Your task to perform on an android device: Search for pizza restaurants on Maps Image 0: 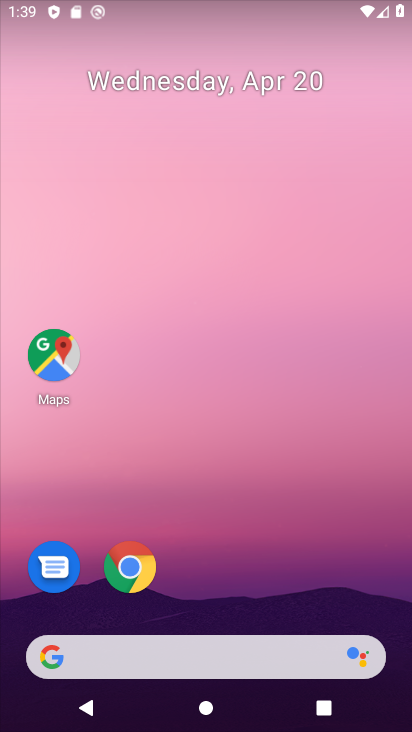
Step 0: click (65, 360)
Your task to perform on an android device: Search for pizza restaurants on Maps Image 1: 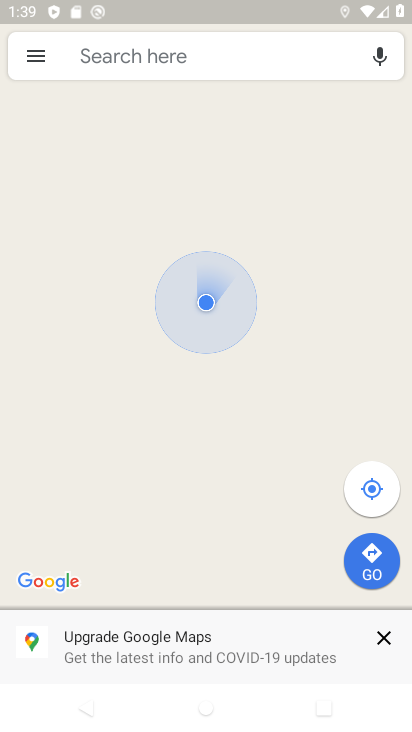
Step 1: click (227, 53)
Your task to perform on an android device: Search for pizza restaurants on Maps Image 2: 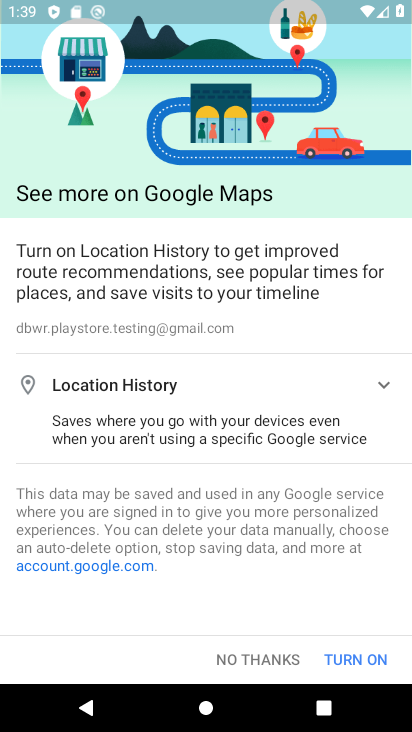
Step 2: type "pizza restaurants"
Your task to perform on an android device: Search for pizza restaurants on Maps Image 3: 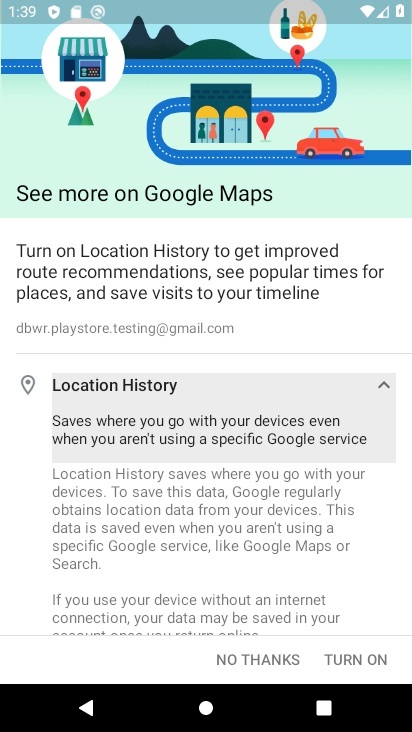
Step 3: click (255, 663)
Your task to perform on an android device: Search for pizza restaurants on Maps Image 4: 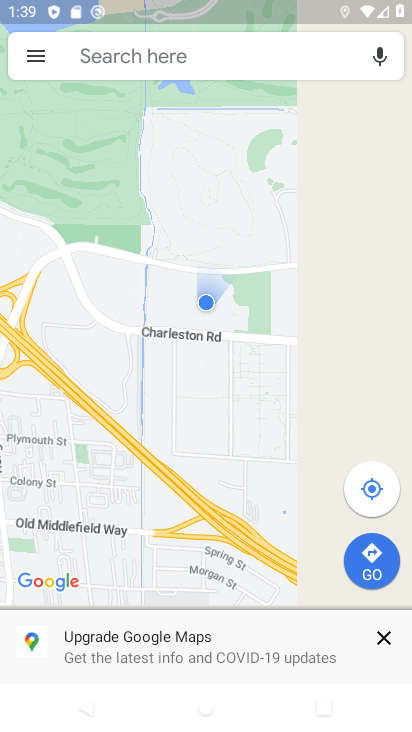
Step 4: click (192, 57)
Your task to perform on an android device: Search for pizza restaurants on Maps Image 5: 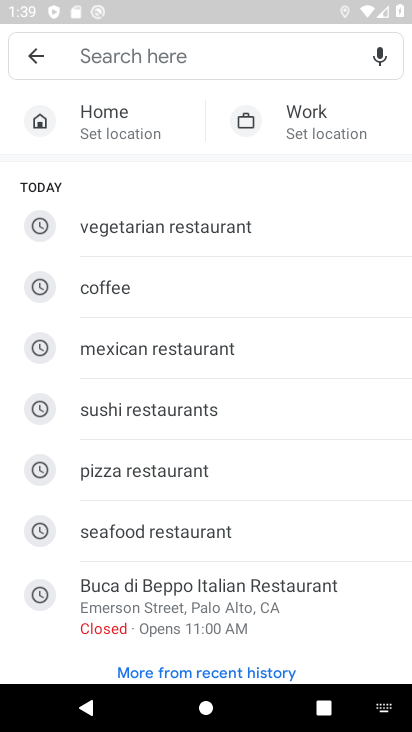
Step 5: type "pizza restaurant"
Your task to perform on an android device: Search for pizza restaurants on Maps Image 6: 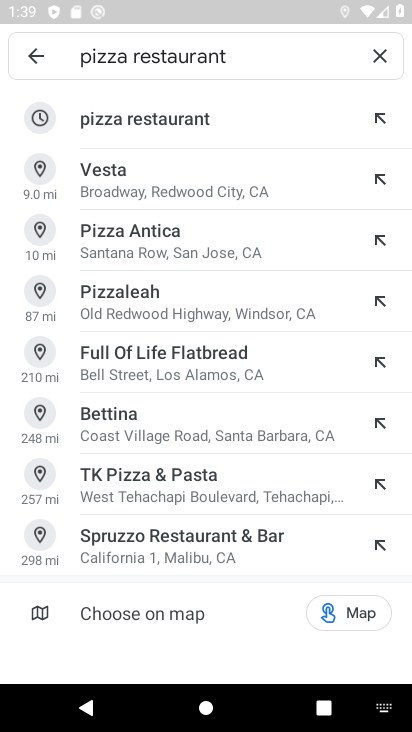
Step 6: click (156, 137)
Your task to perform on an android device: Search for pizza restaurants on Maps Image 7: 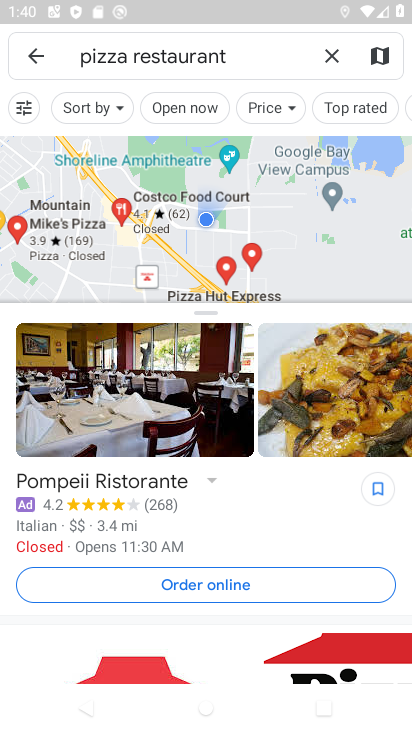
Step 7: task complete